Your task to perform on an android device: find photos in the google photos app Image 0: 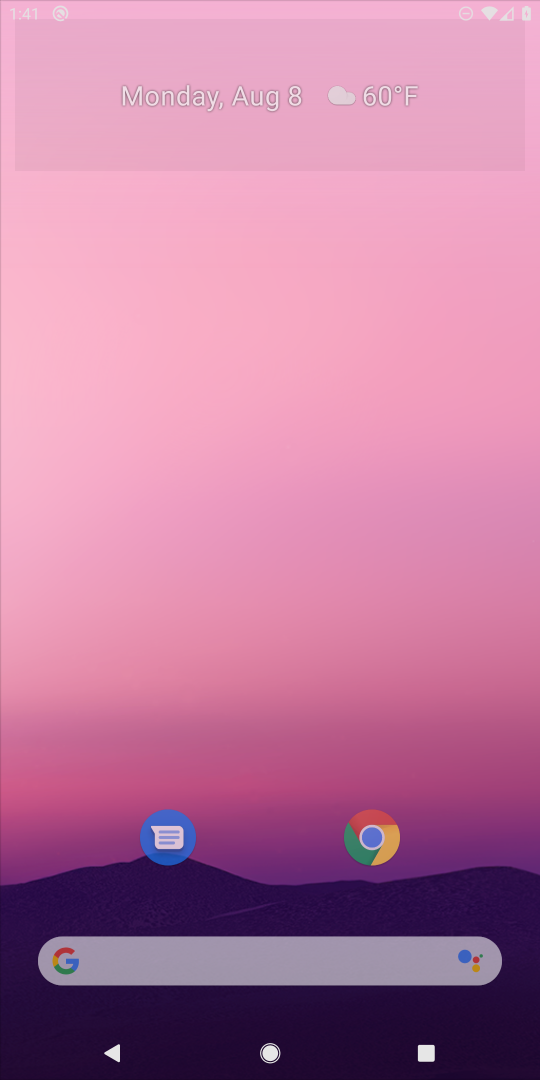
Step 0: press home button
Your task to perform on an android device: find photos in the google photos app Image 1: 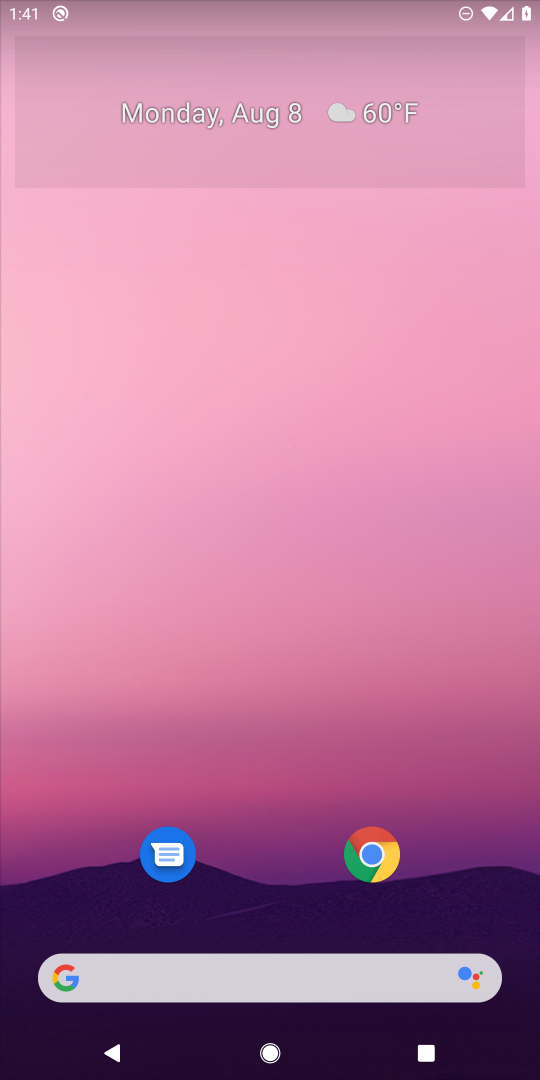
Step 1: drag from (260, 767) to (284, 180)
Your task to perform on an android device: find photos in the google photos app Image 2: 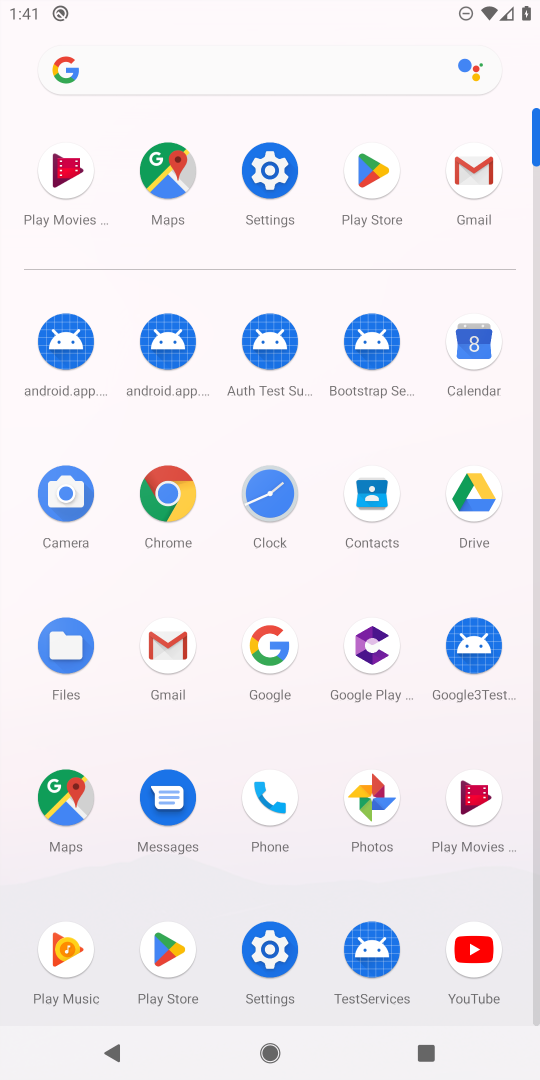
Step 2: click (385, 794)
Your task to perform on an android device: find photos in the google photos app Image 3: 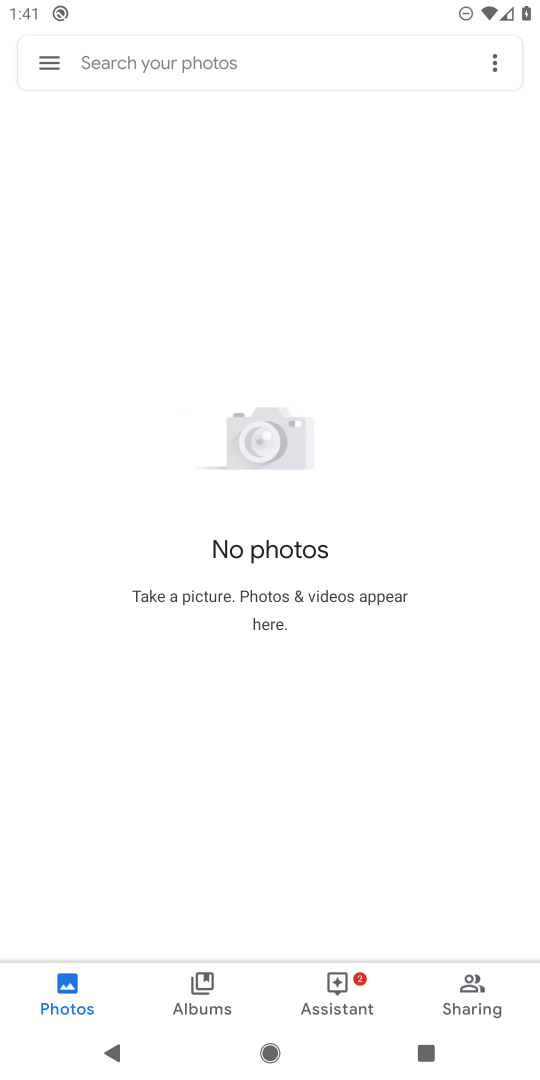
Step 3: task complete